Your task to perform on an android device: Open Google Maps and go to "Timeline" Image 0: 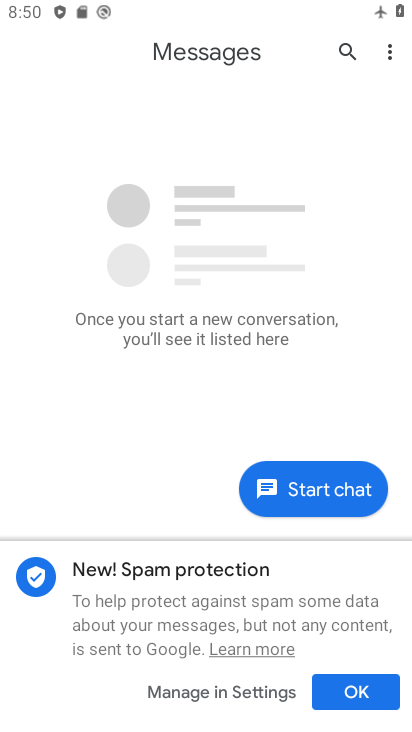
Step 0: press home button
Your task to perform on an android device: Open Google Maps and go to "Timeline" Image 1: 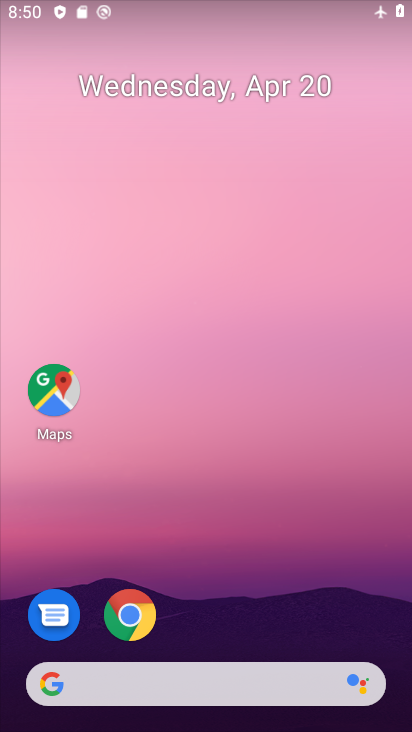
Step 1: click (50, 390)
Your task to perform on an android device: Open Google Maps and go to "Timeline" Image 2: 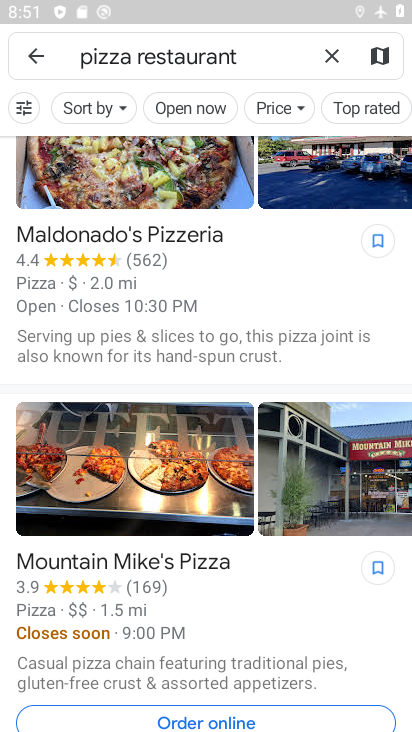
Step 2: click (326, 61)
Your task to perform on an android device: Open Google Maps and go to "Timeline" Image 3: 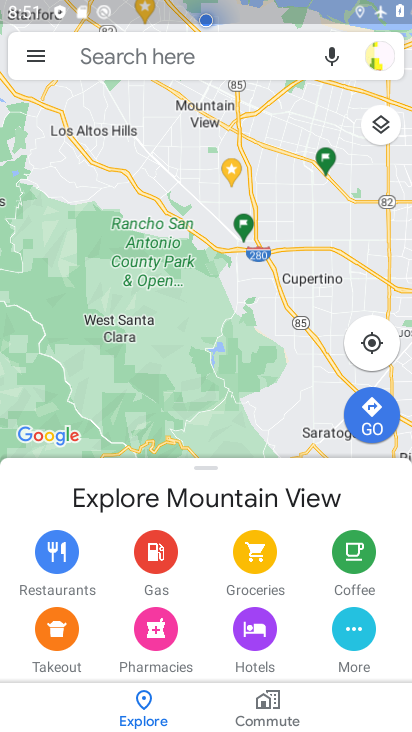
Step 3: click (38, 56)
Your task to perform on an android device: Open Google Maps and go to "Timeline" Image 4: 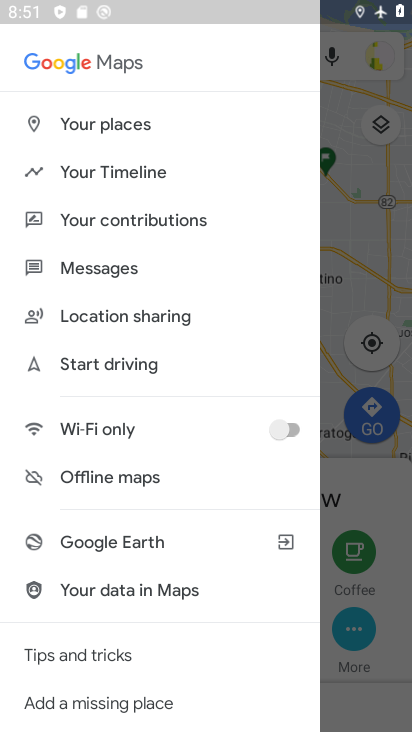
Step 4: click (143, 174)
Your task to perform on an android device: Open Google Maps and go to "Timeline" Image 5: 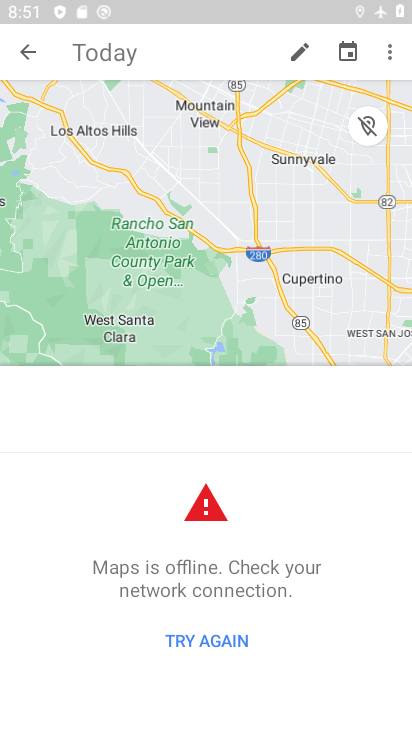
Step 5: task complete